Your task to perform on an android device: star an email in the gmail app Image 0: 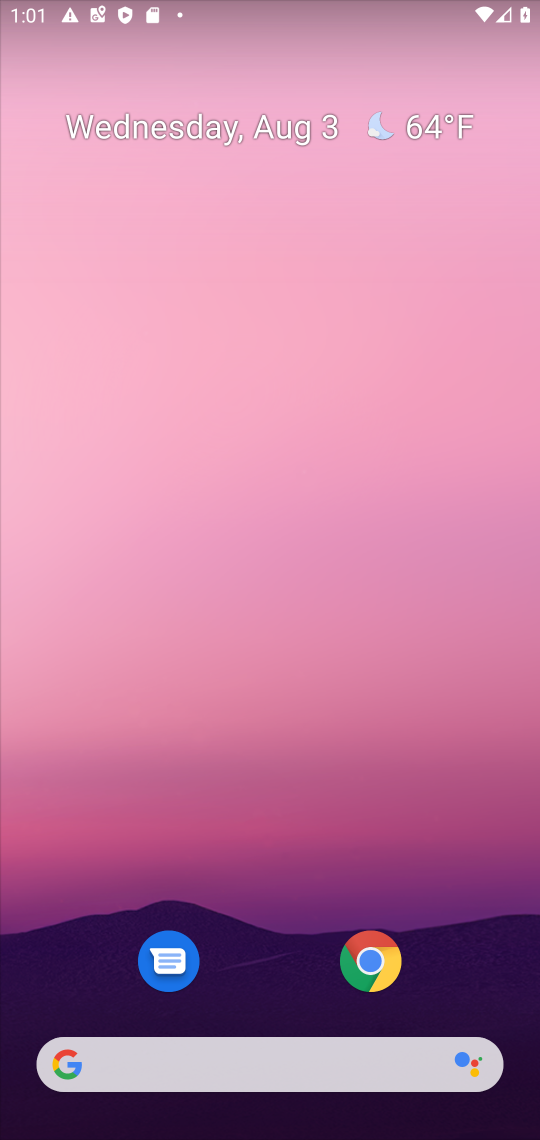
Step 0: press home button
Your task to perform on an android device: star an email in the gmail app Image 1: 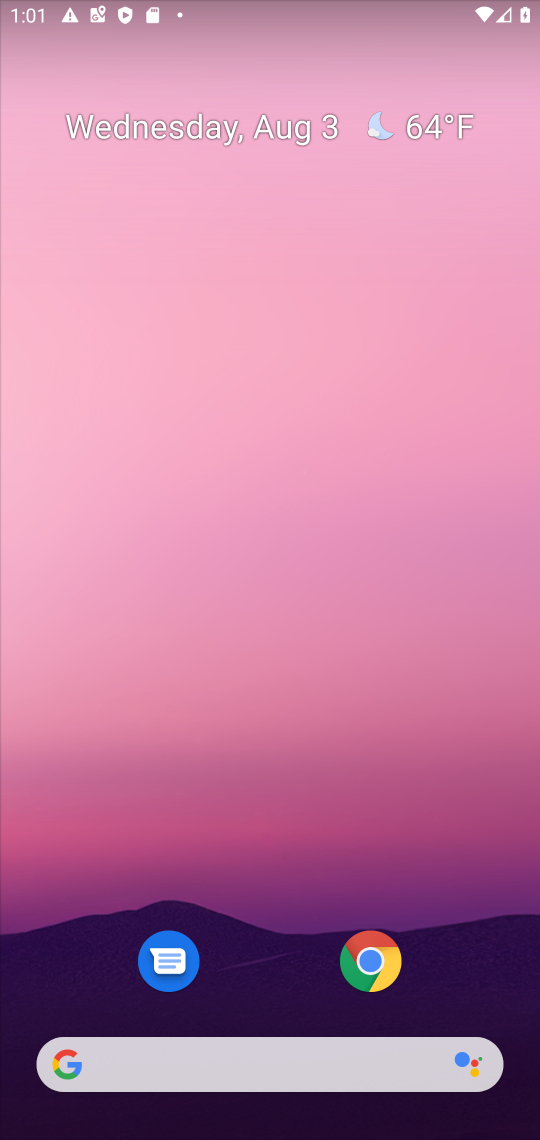
Step 1: drag from (266, 987) to (233, 14)
Your task to perform on an android device: star an email in the gmail app Image 2: 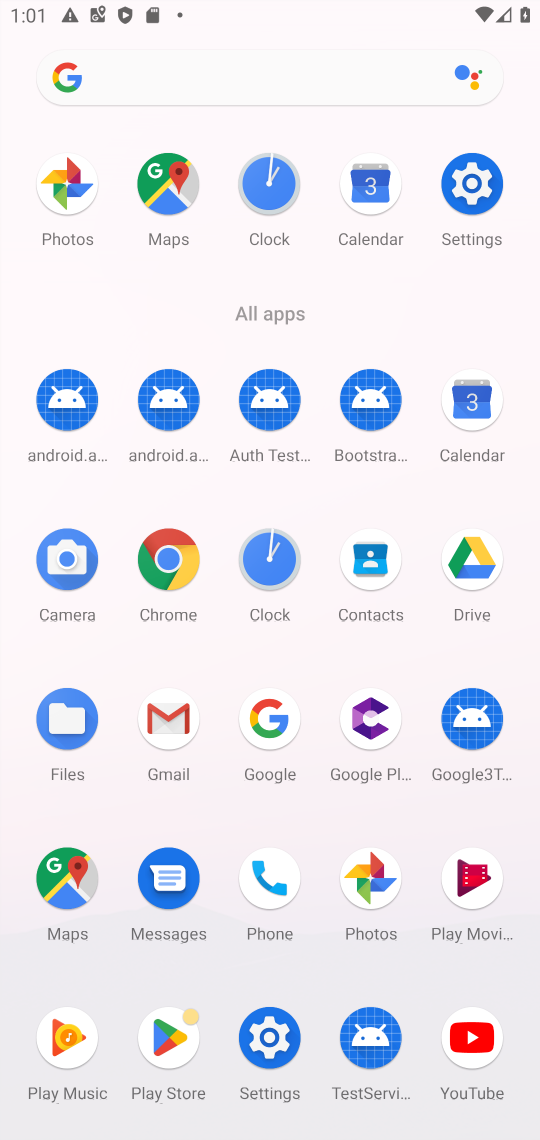
Step 2: click (168, 711)
Your task to perform on an android device: star an email in the gmail app Image 3: 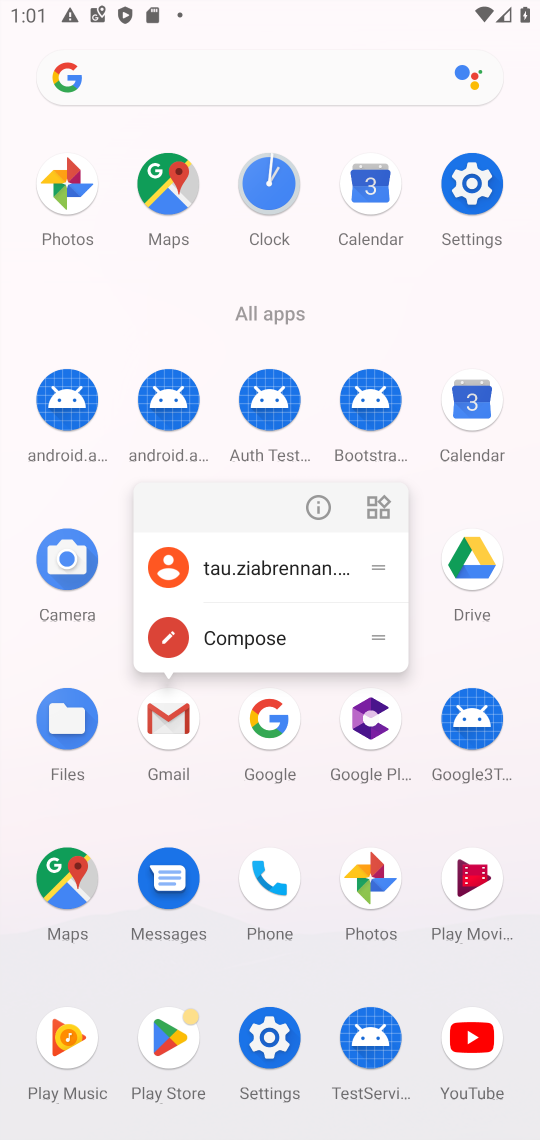
Step 3: click (168, 711)
Your task to perform on an android device: star an email in the gmail app Image 4: 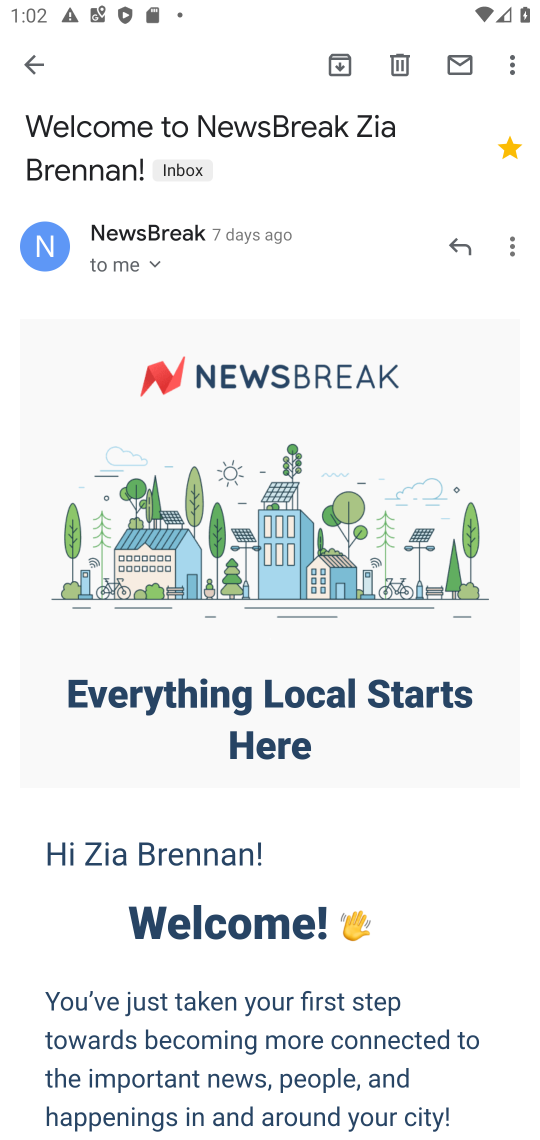
Step 4: task complete